Your task to perform on an android device: Open Reddit.com Image 0: 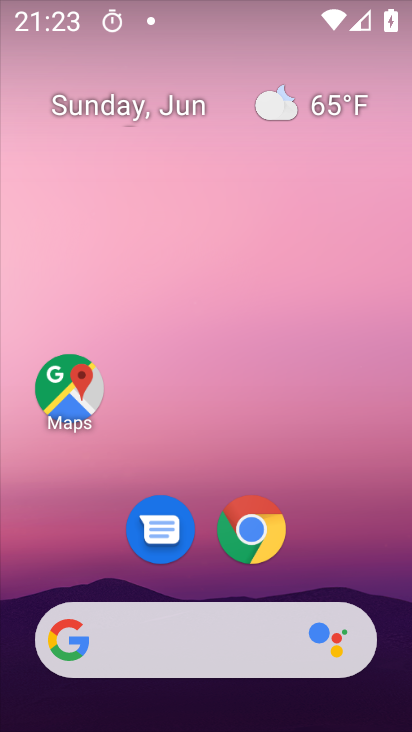
Step 0: click (244, 537)
Your task to perform on an android device: Open Reddit.com Image 1: 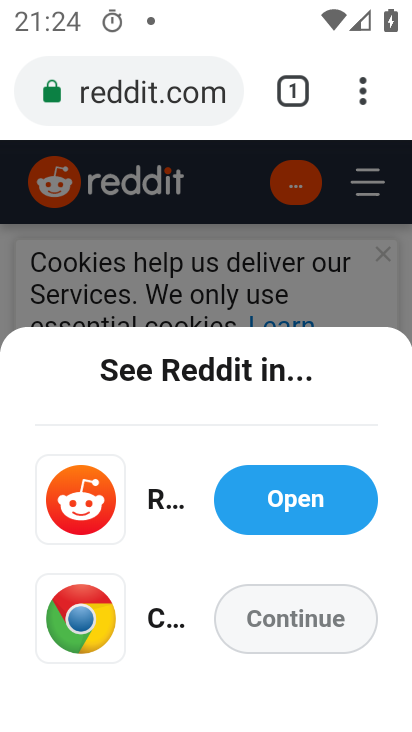
Step 1: task complete